Your task to perform on an android device: Open display settings Image 0: 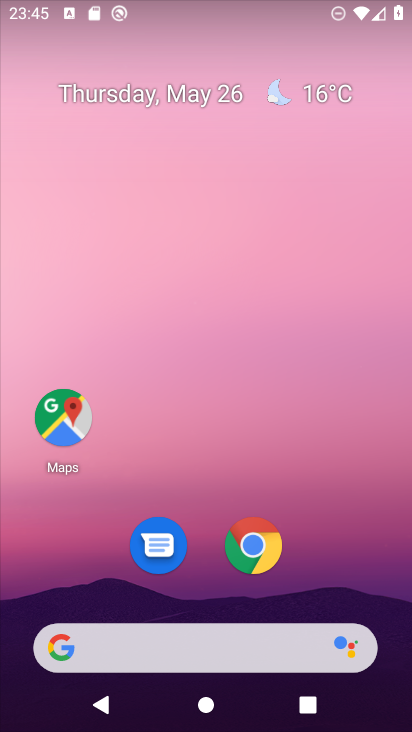
Step 0: drag from (278, 584) to (242, 66)
Your task to perform on an android device: Open display settings Image 1: 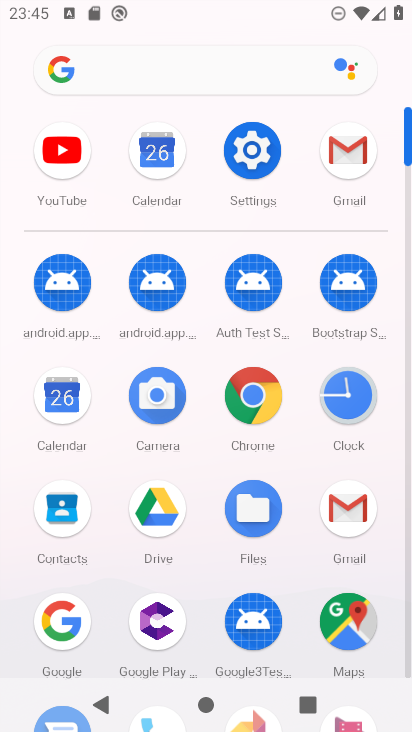
Step 1: click (242, 150)
Your task to perform on an android device: Open display settings Image 2: 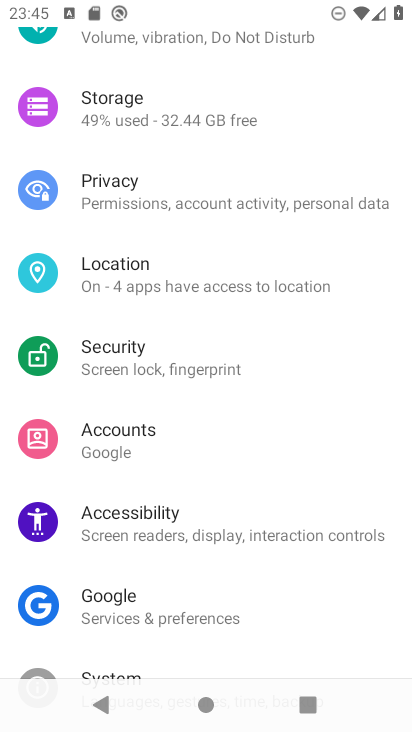
Step 2: drag from (233, 141) to (171, 599)
Your task to perform on an android device: Open display settings Image 3: 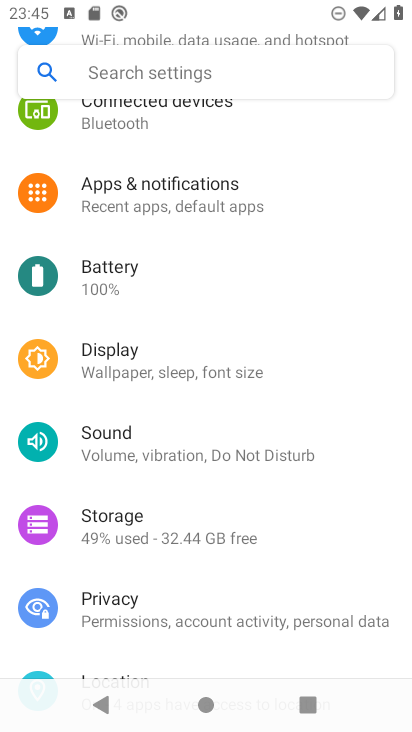
Step 3: click (102, 356)
Your task to perform on an android device: Open display settings Image 4: 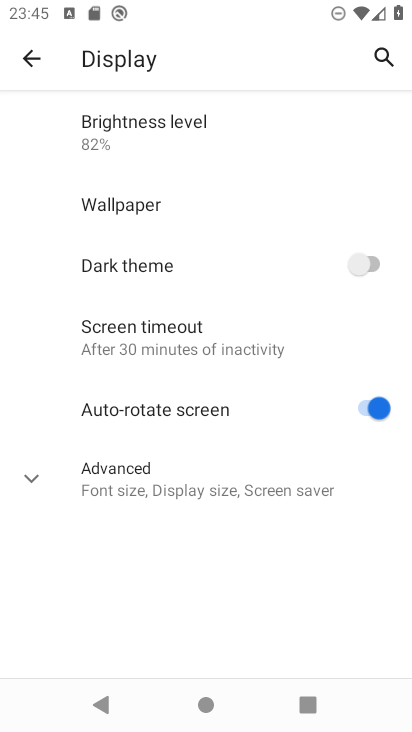
Step 4: task complete